Your task to perform on an android device: Go to Yahoo.com Image 0: 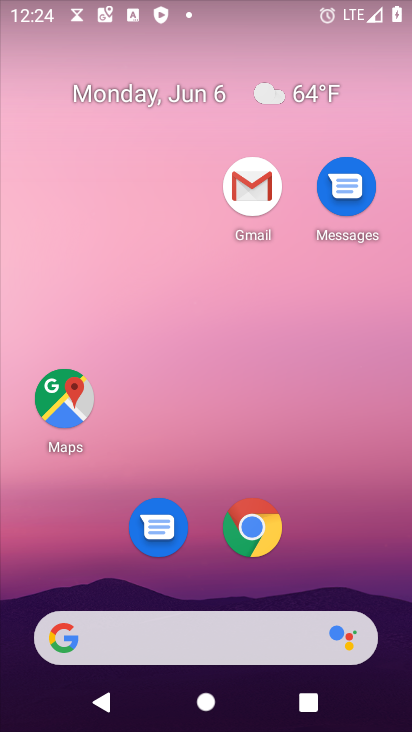
Step 0: click (268, 528)
Your task to perform on an android device: Go to Yahoo.com Image 1: 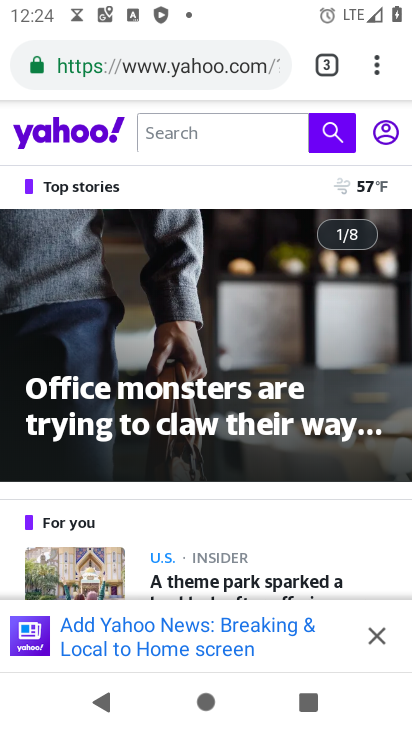
Step 1: task complete